Your task to perform on an android device: Search for pizza restaurants on Maps Image 0: 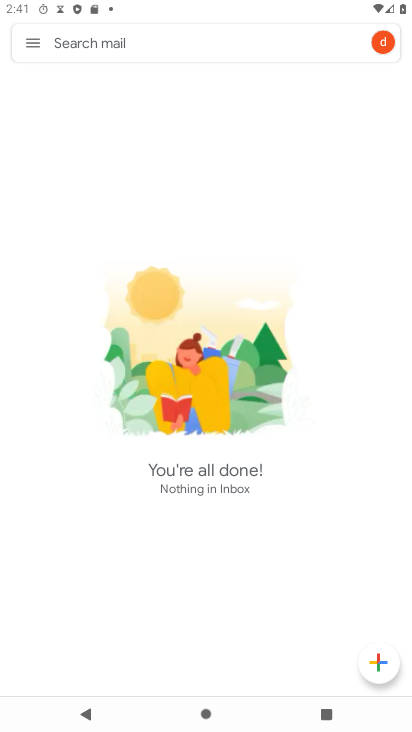
Step 0: press home button
Your task to perform on an android device: Search for pizza restaurants on Maps Image 1: 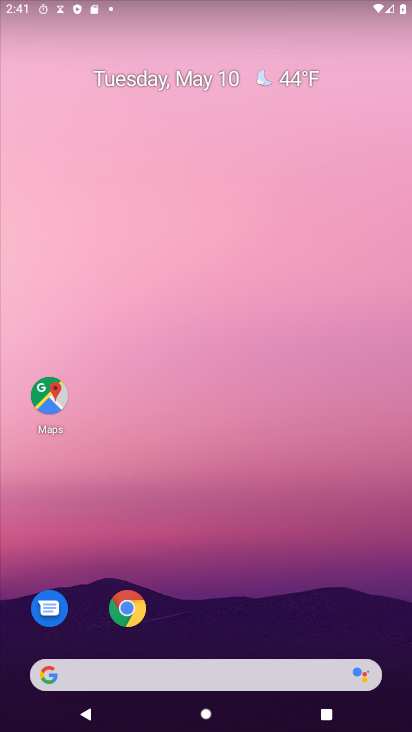
Step 1: click (54, 399)
Your task to perform on an android device: Search for pizza restaurants on Maps Image 2: 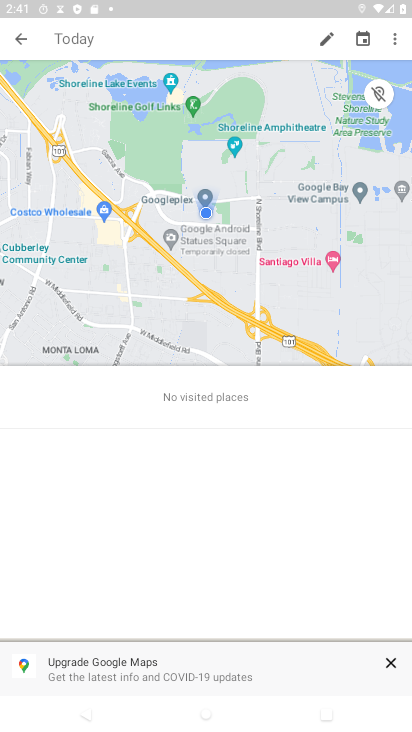
Step 2: click (21, 43)
Your task to perform on an android device: Search for pizza restaurants on Maps Image 3: 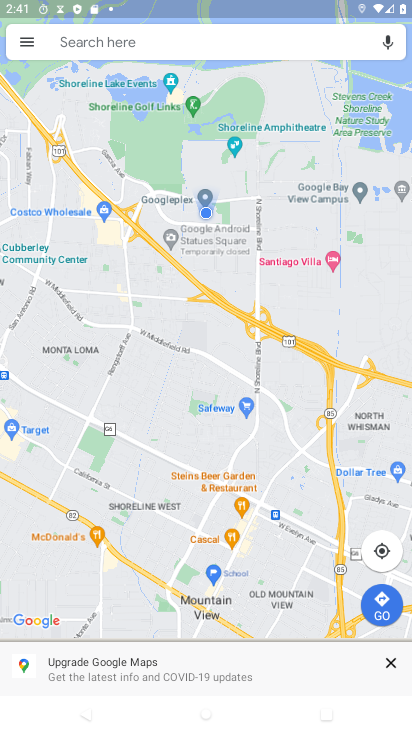
Step 3: click (82, 47)
Your task to perform on an android device: Search for pizza restaurants on Maps Image 4: 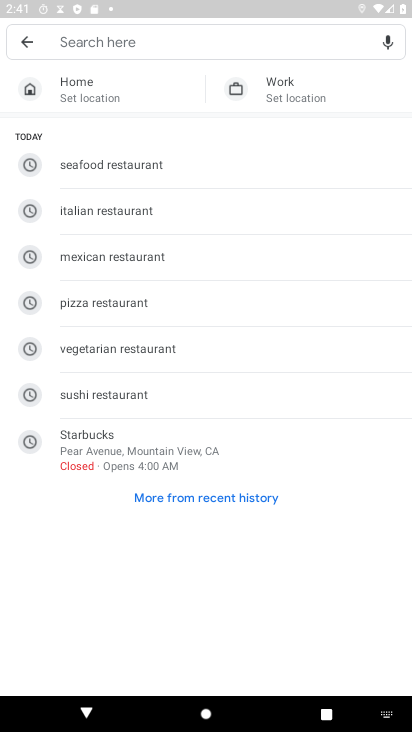
Step 4: type "pizza restaurant "
Your task to perform on an android device: Search for pizza restaurants on Maps Image 5: 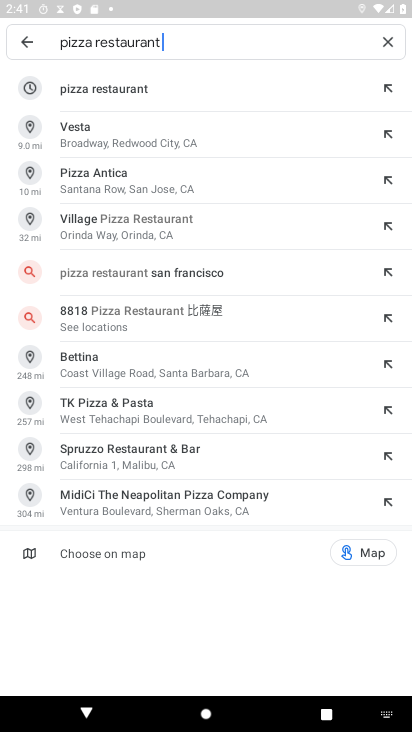
Step 5: click (113, 94)
Your task to perform on an android device: Search for pizza restaurants on Maps Image 6: 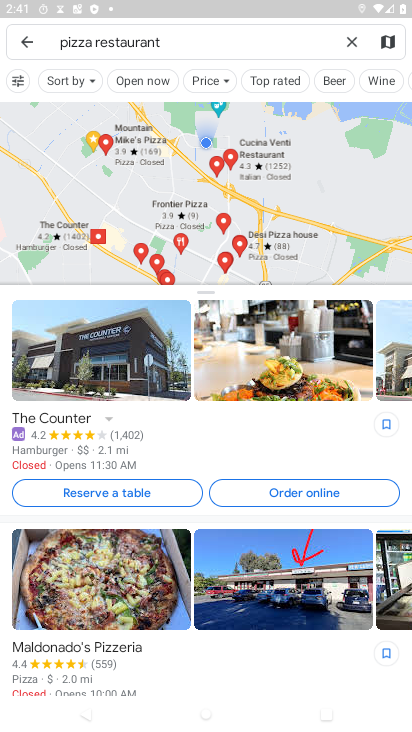
Step 6: task complete